Your task to perform on an android device: Open Google Maps and go to "Timeline" Image 0: 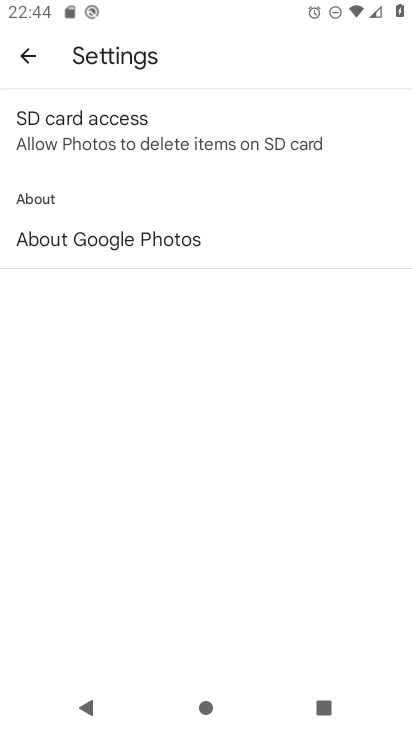
Step 0: press home button
Your task to perform on an android device: Open Google Maps and go to "Timeline" Image 1: 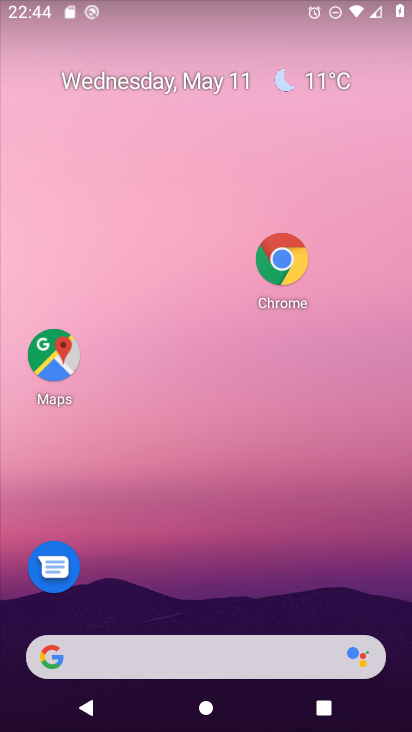
Step 1: click (63, 360)
Your task to perform on an android device: Open Google Maps and go to "Timeline" Image 2: 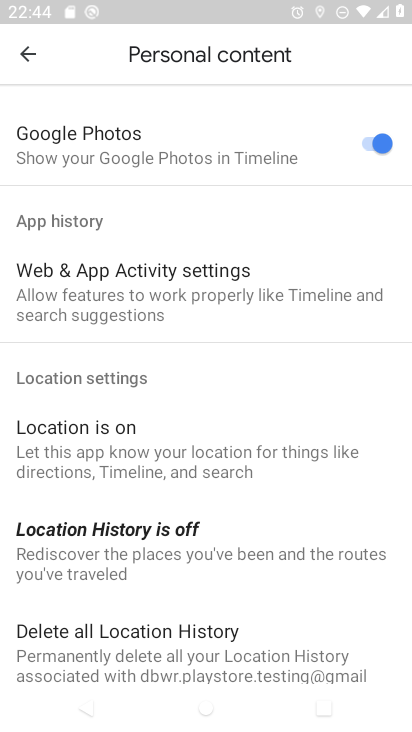
Step 2: click (26, 57)
Your task to perform on an android device: Open Google Maps and go to "Timeline" Image 3: 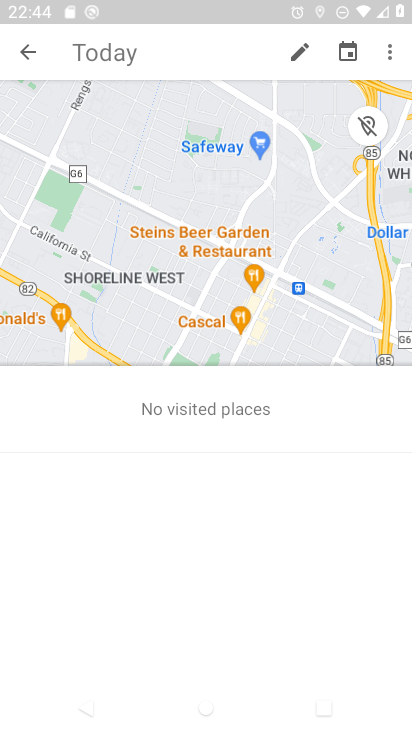
Step 3: drag from (110, 582) to (258, 379)
Your task to perform on an android device: Open Google Maps and go to "Timeline" Image 4: 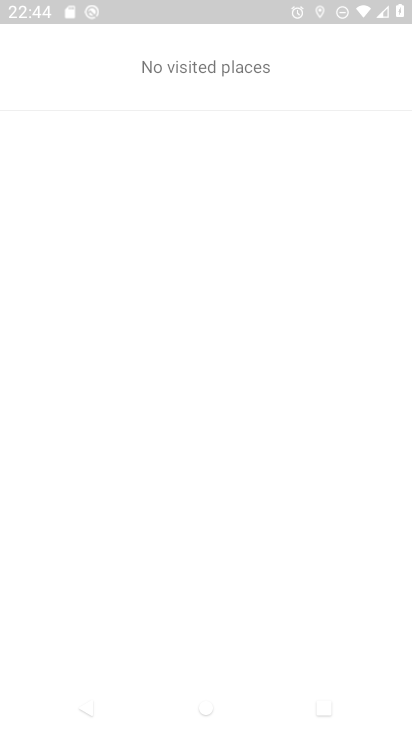
Step 4: drag from (294, 179) to (247, 596)
Your task to perform on an android device: Open Google Maps and go to "Timeline" Image 5: 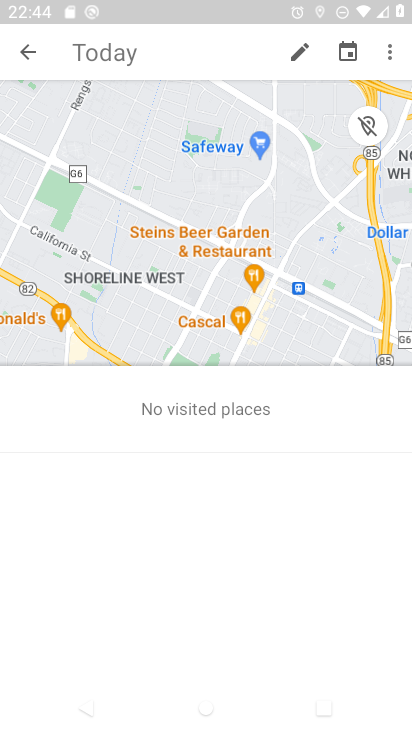
Step 5: click (24, 50)
Your task to perform on an android device: Open Google Maps and go to "Timeline" Image 6: 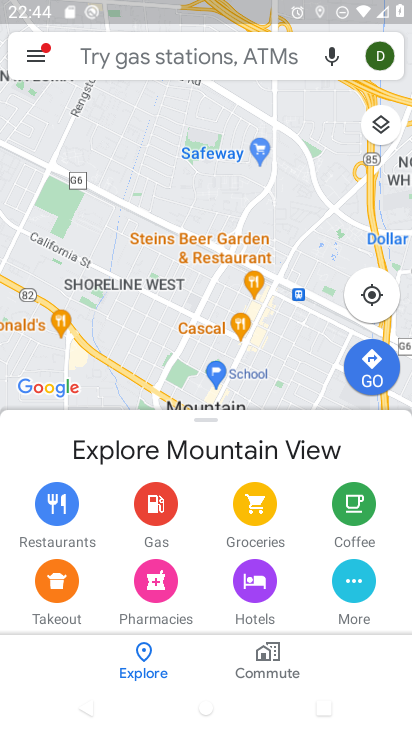
Step 6: click (36, 47)
Your task to perform on an android device: Open Google Maps and go to "Timeline" Image 7: 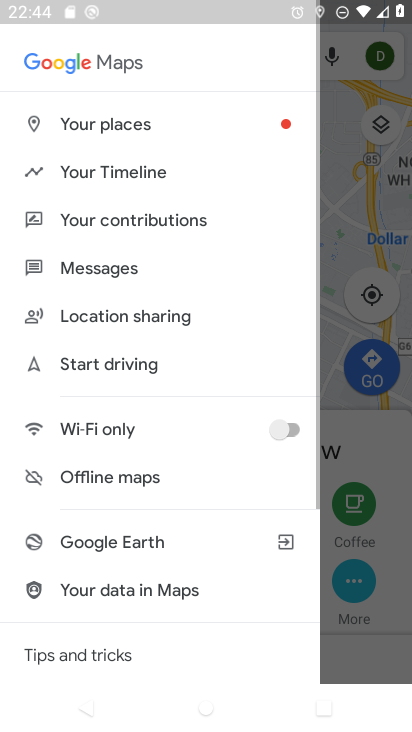
Step 7: click (110, 170)
Your task to perform on an android device: Open Google Maps and go to "Timeline" Image 8: 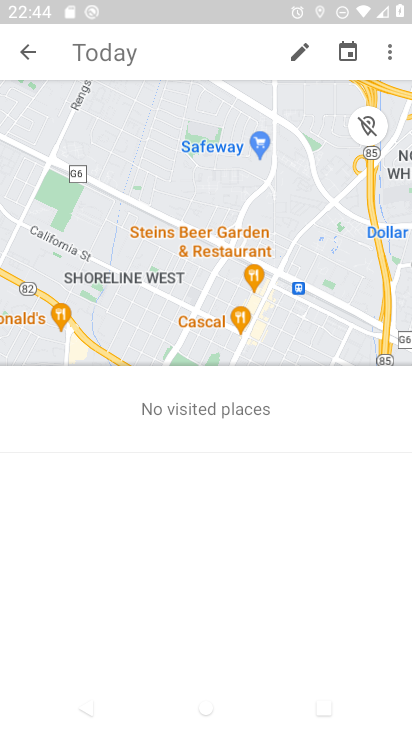
Step 8: task complete